Your task to perform on an android device: set the stopwatch Image 0: 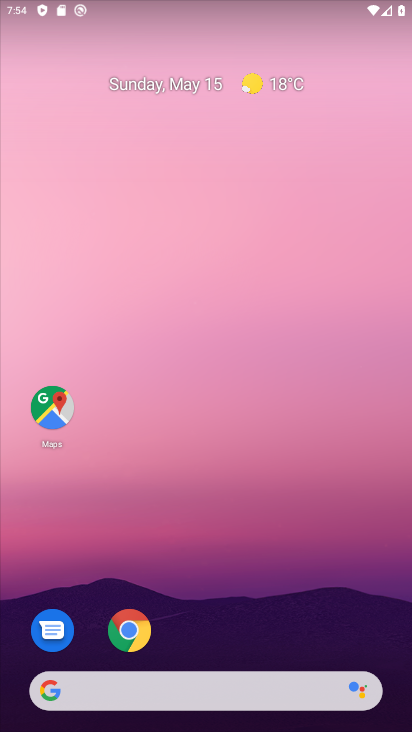
Step 0: drag from (225, 575) to (269, 302)
Your task to perform on an android device: set the stopwatch Image 1: 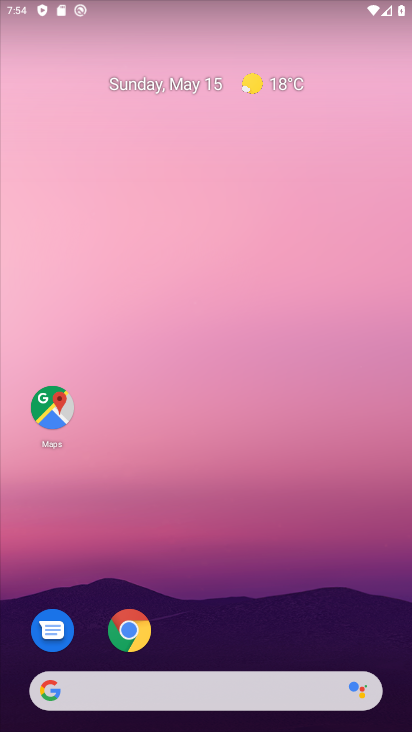
Step 1: drag from (181, 644) to (214, 51)
Your task to perform on an android device: set the stopwatch Image 2: 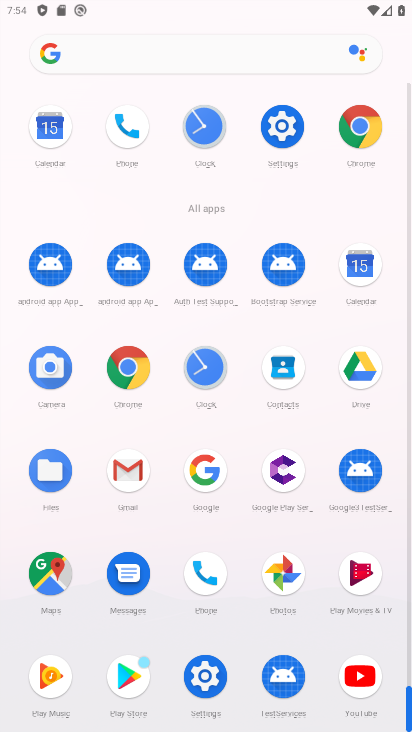
Step 2: click (202, 385)
Your task to perform on an android device: set the stopwatch Image 3: 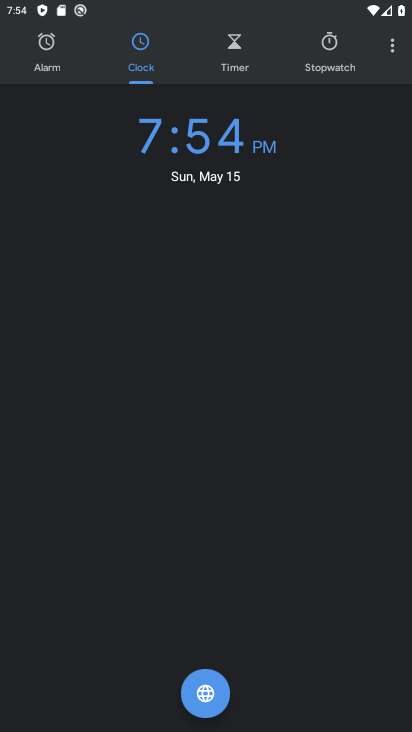
Step 3: click (335, 47)
Your task to perform on an android device: set the stopwatch Image 4: 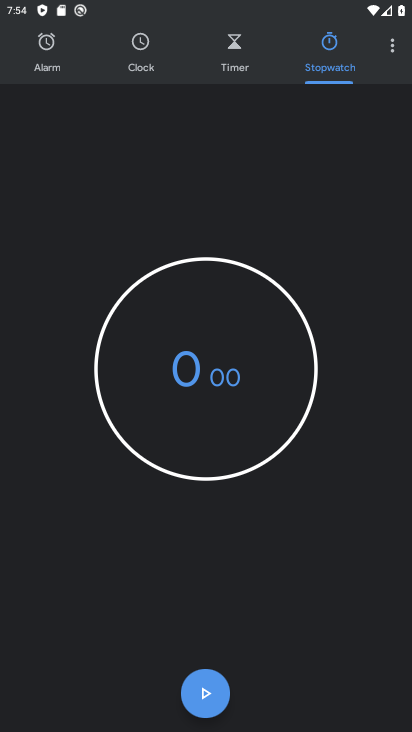
Step 4: task complete